Your task to perform on an android device: Is it going to rain tomorrow? Image 0: 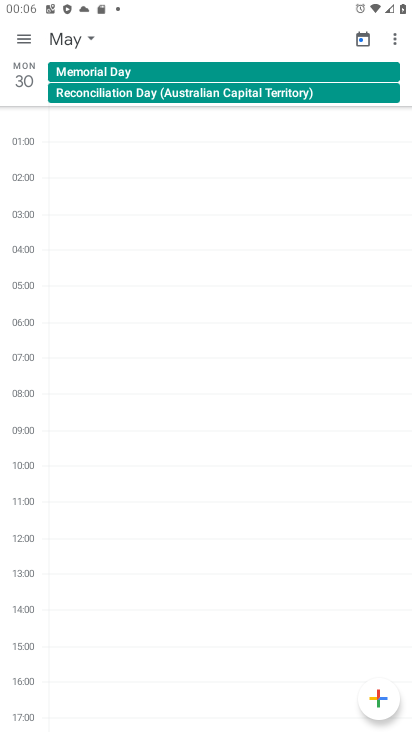
Step 0: press home button
Your task to perform on an android device: Is it going to rain tomorrow? Image 1: 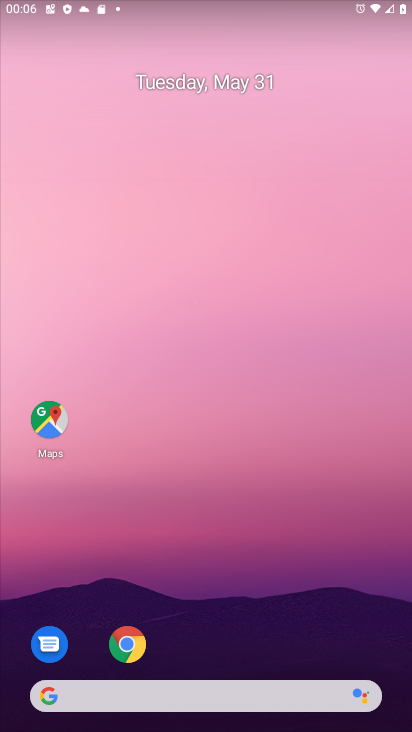
Step 1: drag from (375, 659) to (300, 128)
Your task to perform on an android device: Is it going to rain tomorrow? Image 2: 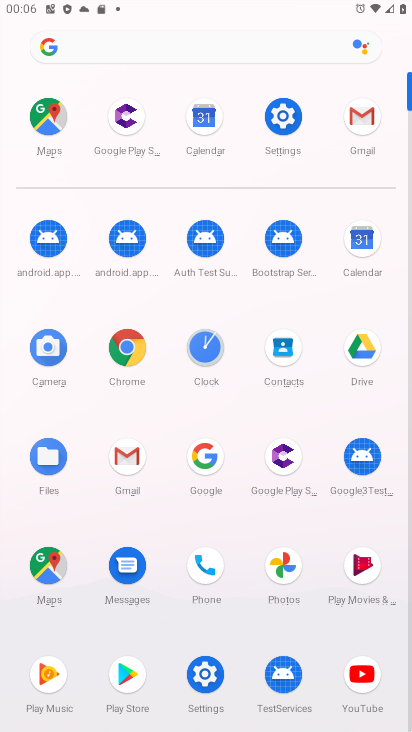
Step 2: click (204, 58)
Your task to perform on an android device: Is it going to rain tomorrow? Image 3: 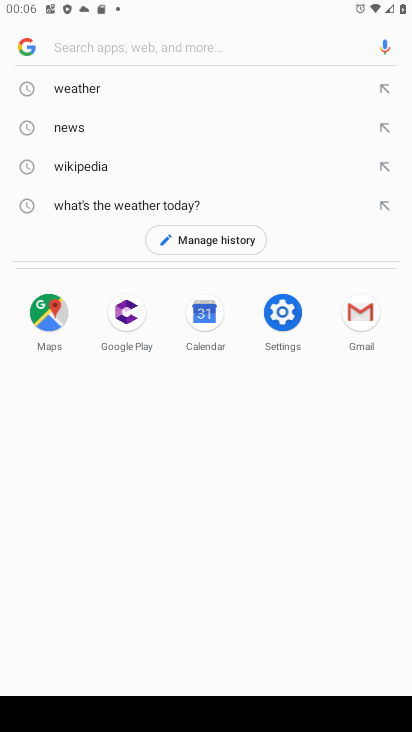
Step 3: click (89, 84)
Your task to perform on an android device: Is it going to rain tomorrow? Image 4: 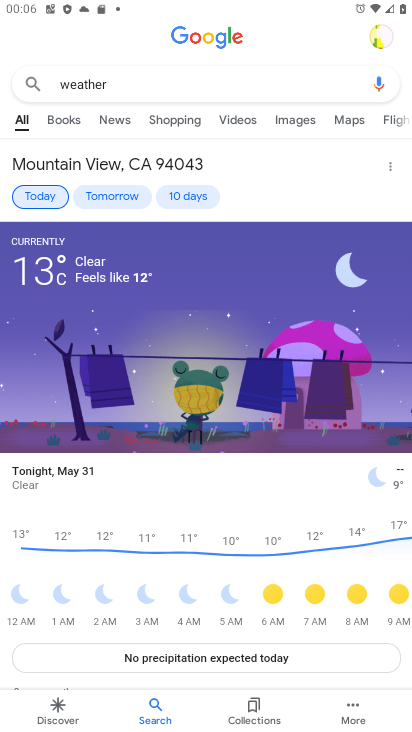
Step 4: click (126, 197)
Your task to perform on an android device: Is it going to rain tomorrow? Image 5: 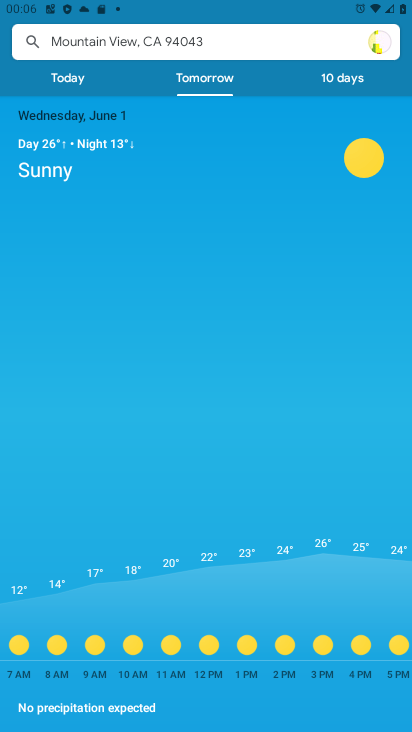
Step 5: task complete